Your task to perform on an android device: Open the map Image 0: 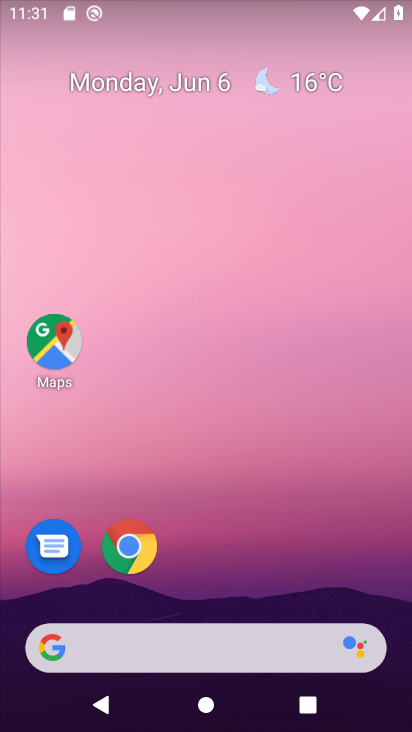
Step 0: click (58, 349)
Your task to perform on an android device: Open the map Image 1: 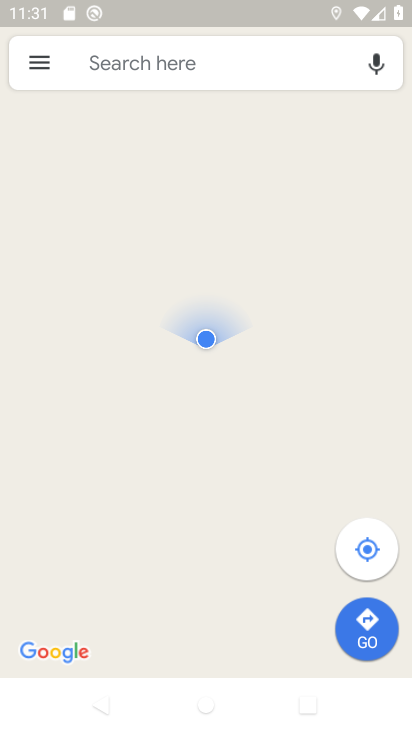
Step 1: task complete